Your task to perform on an android device: check the backup settings in the google photos Image 0: 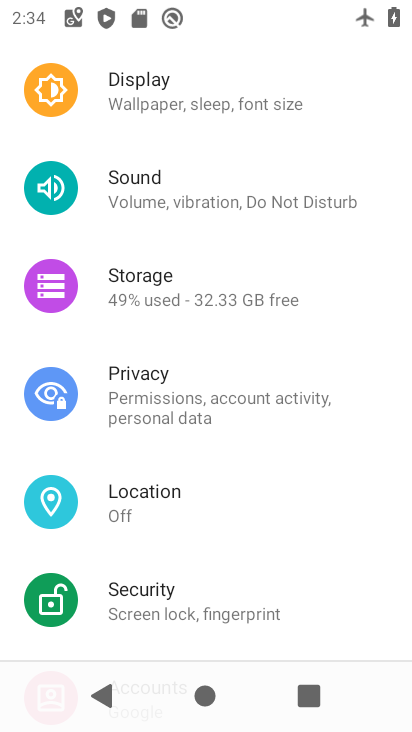
Step 0: press home button
Your task to perform on an android device: check the backup settings in the google photos Image 1: 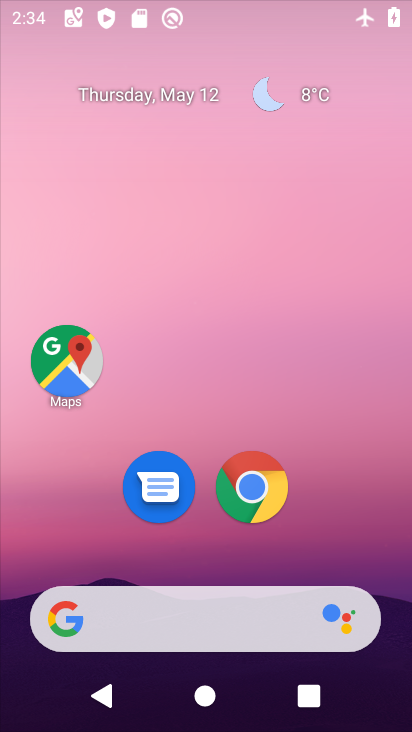
Step 1: drag from (241, 579) to (168, 22)
Your task to perform on an android device: check the backup settings in the google photos Image 2: 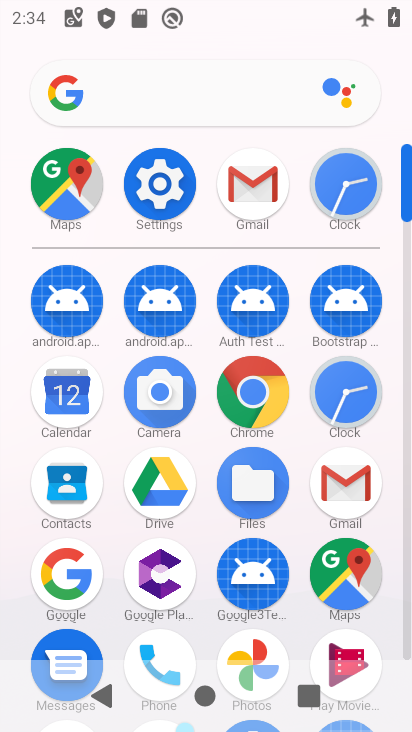
Step 2: drag from (218, 552) to (212, 316)
Your task to perform on an android device: check the backup settings in the google photos Image 3: 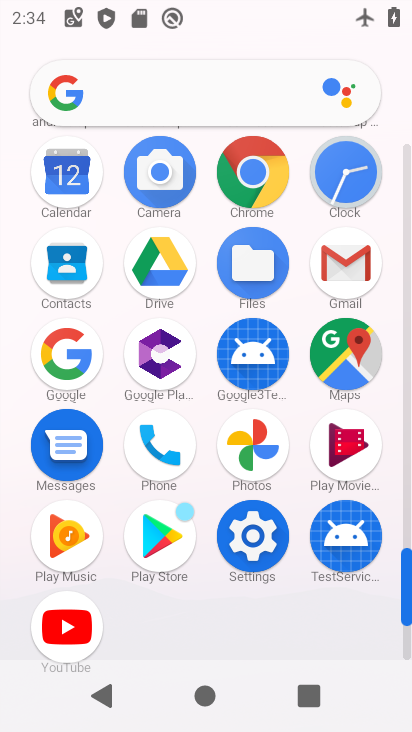
Step 3: click (254, 455)
Your task to perform on an android device: check the backup settings in the google photos Image 4: 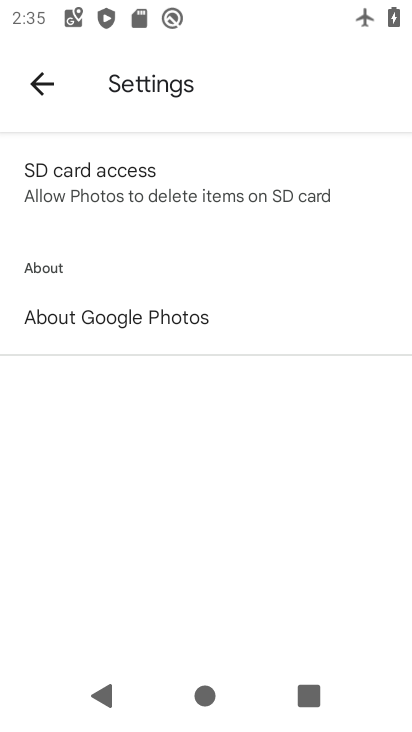
Step 4: click (39, 80)
Your task to perform on an android device: check the backup settings in the google photos Image 5: 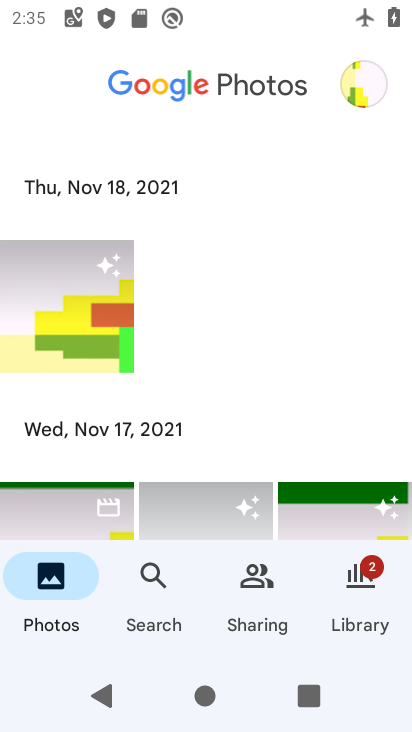
Step 5: click (365, 70)
Your task to perform on an android device: check the backup settings in the google photos Image 6: 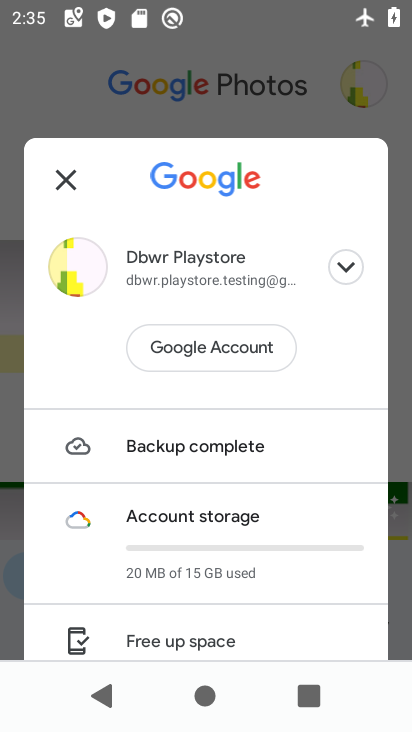
Step 6: drag from (251, 592) to (232, 94)
Your task to perform on an android device: check the backup settings in the google photos Image 7: 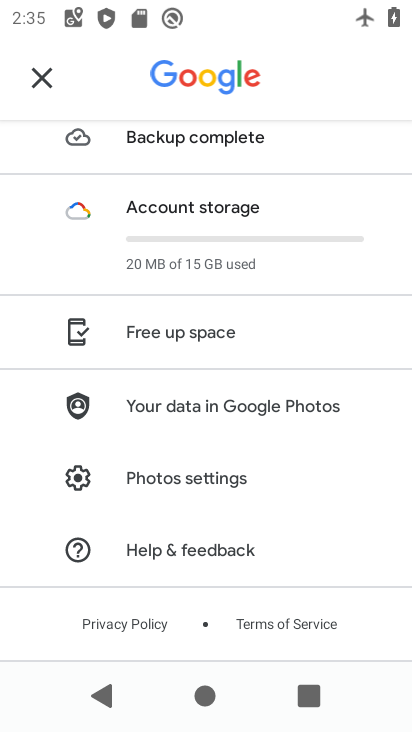
Step 7: click (180, 478)
Your task to perform on an android device: check the backup settings in the google photos Image 8: 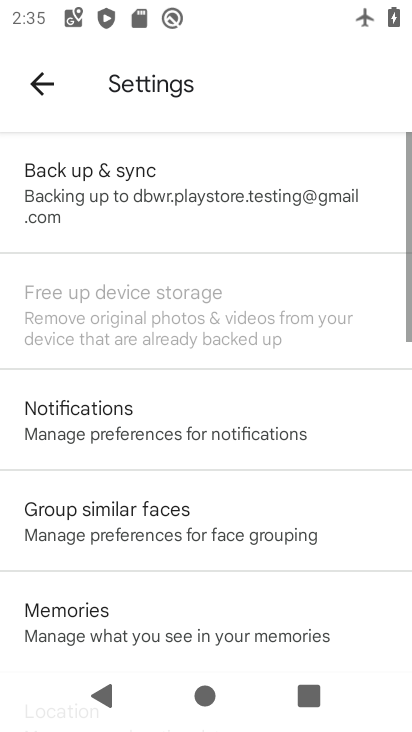
Step 8: click (155, 194)
Your task to perform on an android device: check the backup settings in the google photos Image 9: 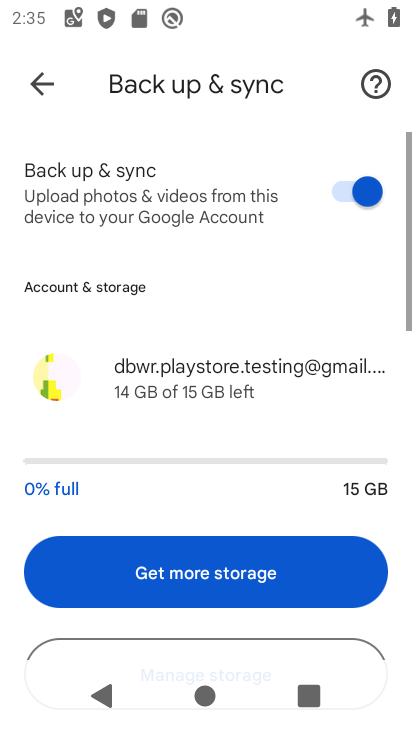
Step 9: task complete